Your task to perform on an android device: Clear all items from cart on ebay.com. Search for "dell xps" on ebay.com, select the first entry, add it to the cart, then select checkout. Image 0: 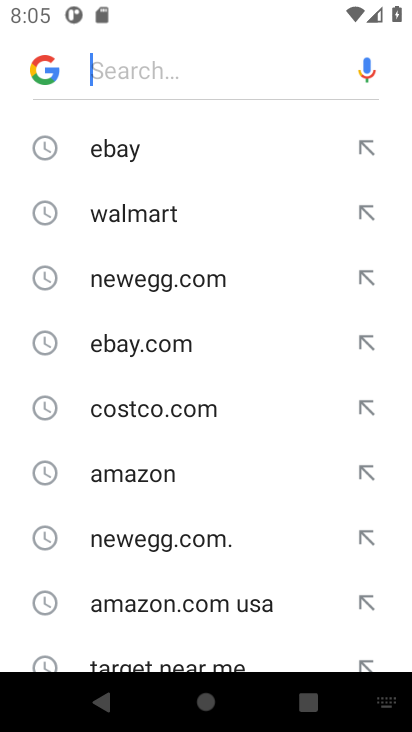
Step 0: press home button
Your task to perform on an android device: Clear all items from cart on ebay.com. Search for "dell xps" on ebay.com, select the first entry, add it to the cart, then select checkout. Image 1: 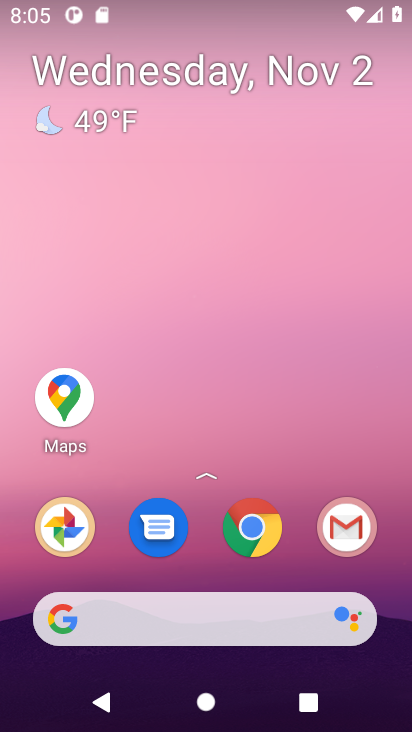
Step 1: click (264, 532)
Your task to perform on an android device: Clear all items from cart on ebay.com. Search for "dell xps" on ebay.com, select the first entry, add it to the cart, then select checkout. Image 2: 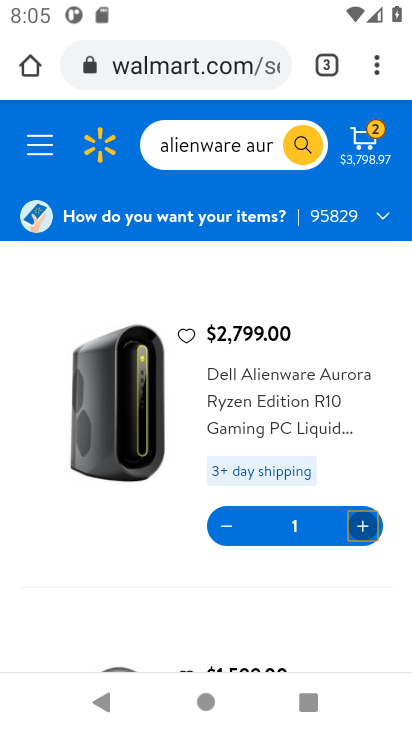
Step 2: click (235, 71)
Your task to perform on an android device: Clear all items from cart on ebay.com. Search for "dell xps" on ebay.com, select the first entry, add it to the cart, then select checkout. Image 3: 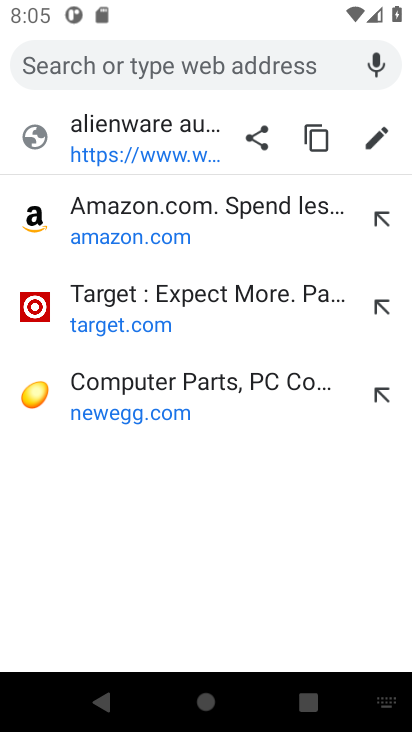
Step 3: type "ebay"
Your task to perform on an android device: Clear all items from cart on ebay.com. Search for "dell xps" on ebay.com, select the first entry, add it to the cart, then select checkout. Image 4: 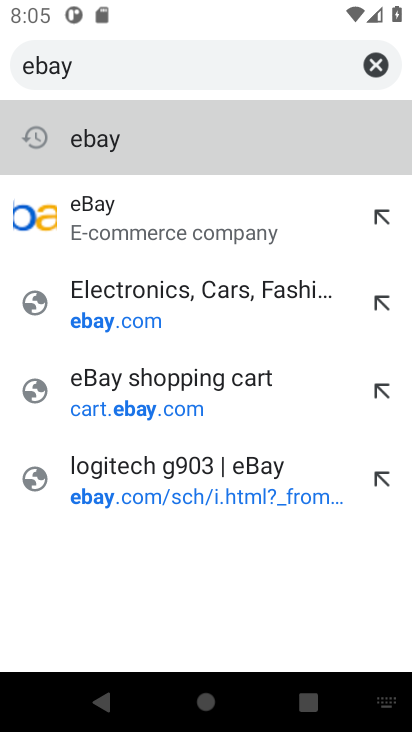
Step 4: click (156, 144)
Your task to perform on an android device: Clear all items from cart on ebay.com. Search for "dell xps" on ebay.com, select the first entry, add it to the cart, then select checkout. Image 5: 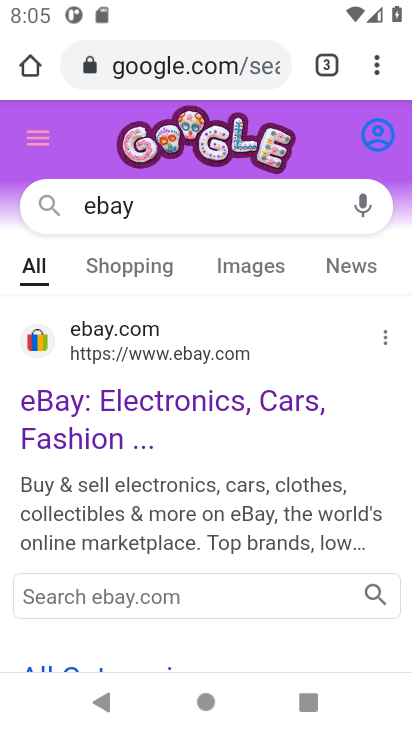
Step 5: click (126, 402)
Your task to perform on an android device: Clear all items from cart on ebay.com. Search for "dell xps" on ebay.com, select the first entry, add it to the cart, then select checkout. Image 6: 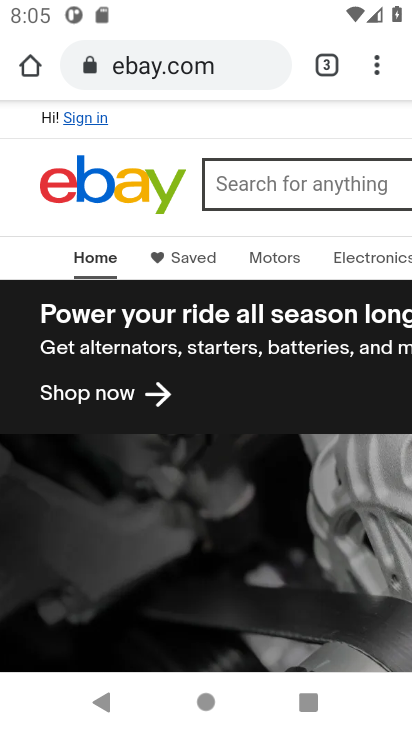
Step 6: drag from (356, 226) to (1, 227)
Your task to perform on an android device: Clear all items from cart on ebay.com. Search for "dell xps" on ebay.com, select the first entry, add it to the cart, then select checkout. Image 7: 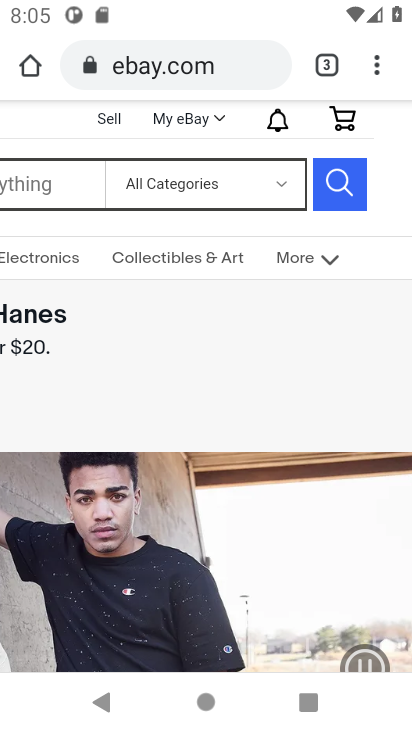
Step 7: click (342, 122)
Your task to perform on an android device: Clear all items from cart on ebay.com. Search for "dell xps" on ebay.com, select the first entry, add it to the cart, then select checkout. Image 8: 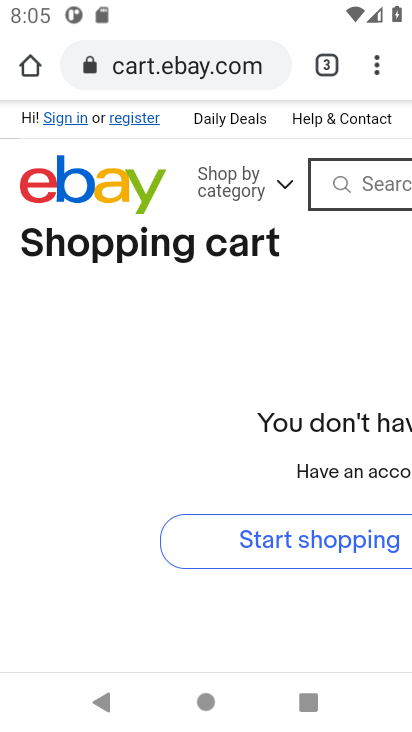
Step 8: click (358, 190)
Your task to perform on an android device: Clear all items from cart on ebay.com. Search for "dell xps" on ebay.com, select the first entry, add it to the cart, then select checkout. Image 9: 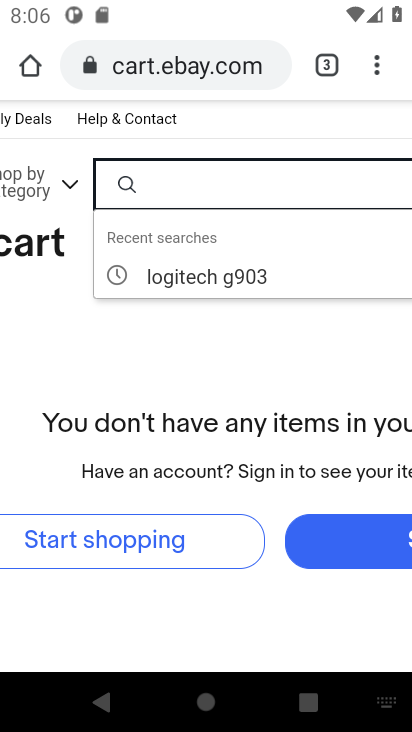
Step 9: type "dell xps"
Your task to perform on an android device: Clear all items from cart on ebay.com. Search for "dell xps" on ebay.com, select the first entry, add it to the cart, then select checkout. Image 10: 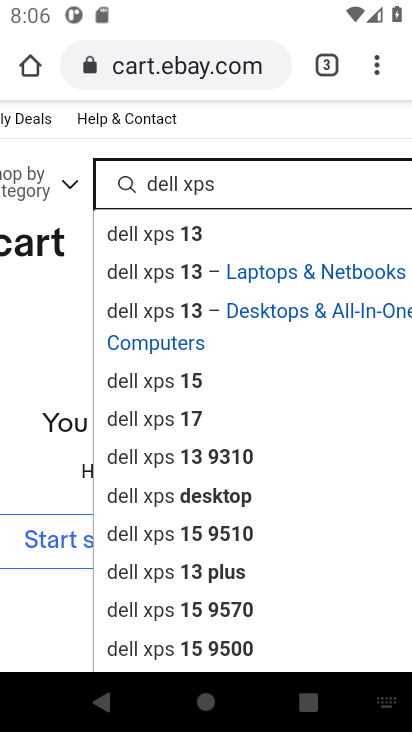
Step 10: press enter
Your task to perform on an android device: Clear all items from cart on ebay.com. Search for "dell xps" on ebay.com, select the first entry, add it to the cart, then select checkout. Image 11: 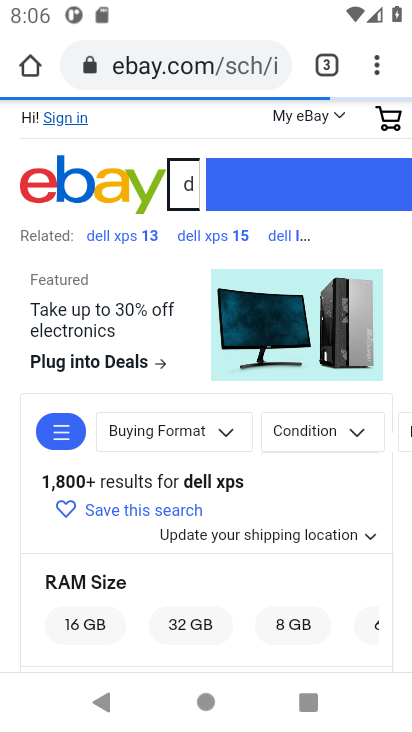
Step 11: drag from (316, 486) to (297, 257)
Your task to perform on an android device: Clear all items from cart on ebay.com. Search for "dell xps" on ebay.com, select the first entry, add it to the cart, then select checkout. Image 12: 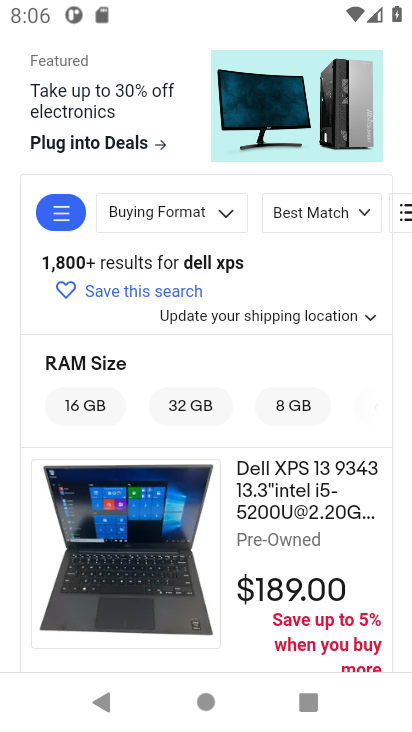
Step 12: click (152, 590)
Your task to perform on an android device: Clear all items from cart on ebay.com. Search for "dell xps" on ebay.com, select the first entry, add it to the cart, then select checkout. Image 13: 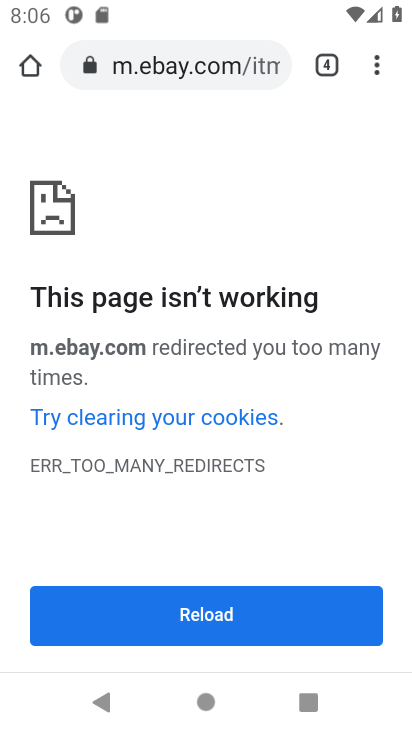
Step 13: click (216, 611)
Your task to perform on an android device: Clear all items from cart on ebay.com. Search for "dell xps" on ebay.com, select the first entry, add it to the cart, then select checkout. Image 14: 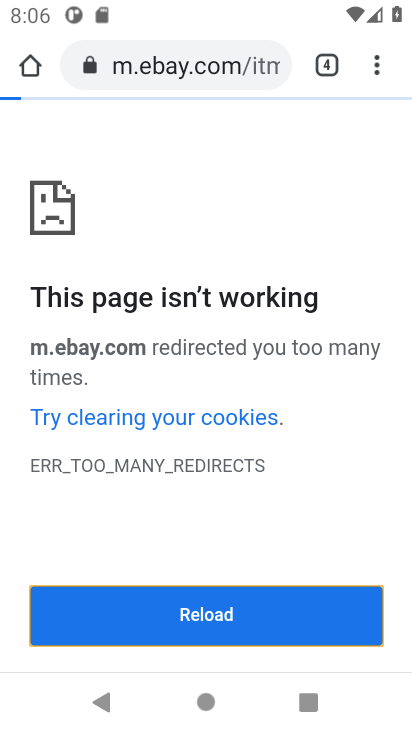
Step 14: task complete